Your task to perform on an android device: What is the recent news? Image 0: 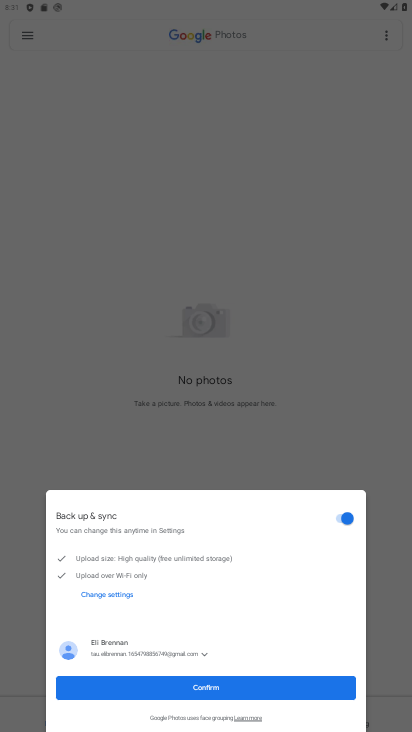
Step 0: press home button
Your task to perform on an android device: What is the recent news? Image 1: 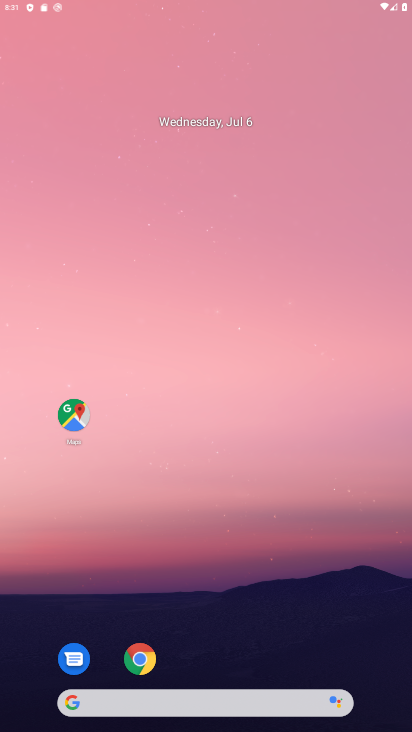
Step 1: press home button
Your task to perform on an android device: What is the recent news? Image 2: 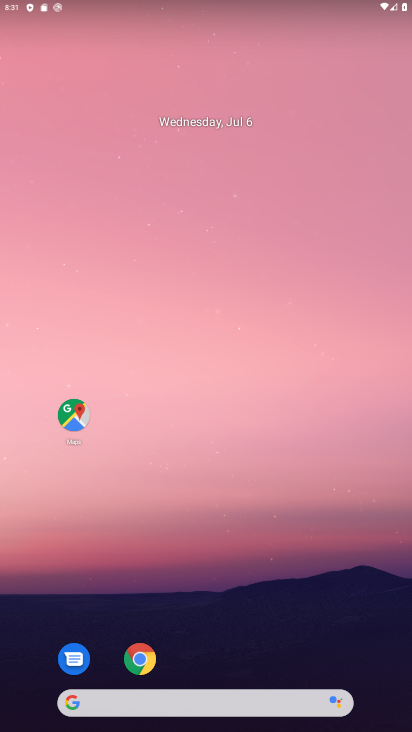
Step 2: press home button
Your task to perform on an android device: What is the recent news? Image 3: 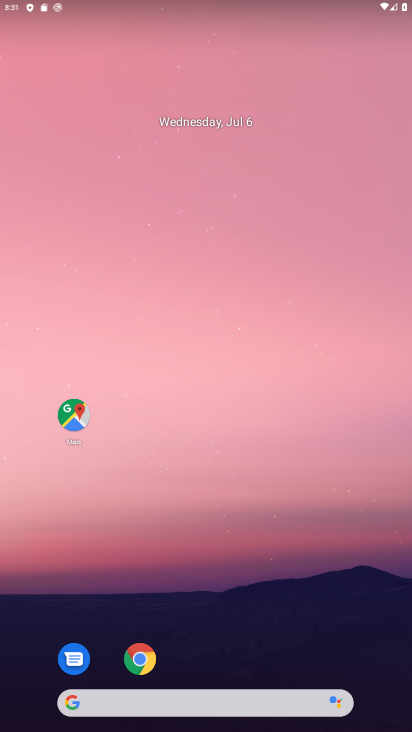
Step 3: click (323, 66)
Your task to perform on an android device: What is the recent news? Image 4: 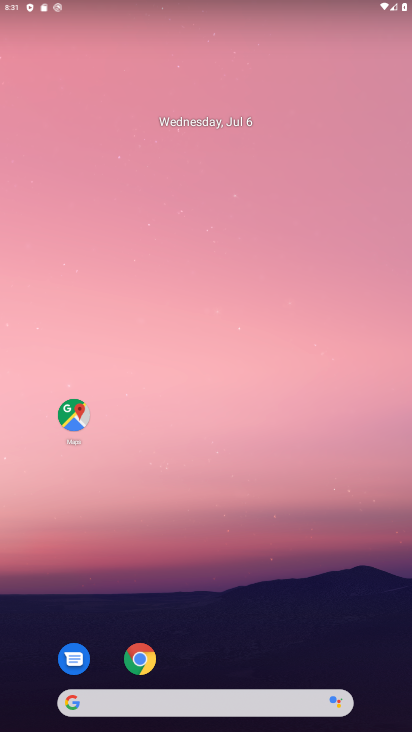
Step 4: click (384, 386)
Your task to perform on an android device: What is the recent news? Image 5: 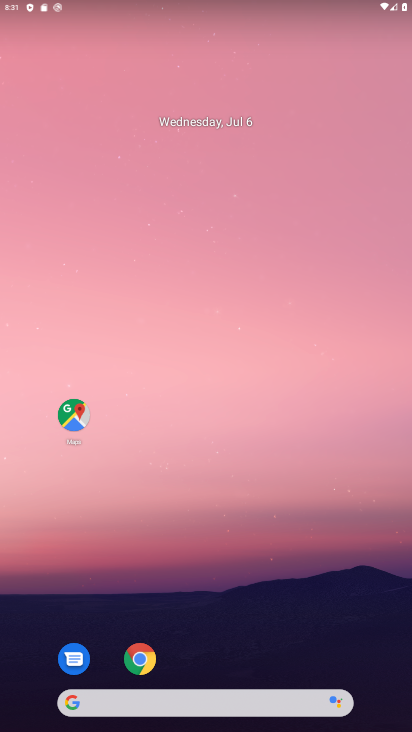
Step 5: drag from (214, 590) to (276, 212)
Your task to perform on an android device: What is the recent news? Image 6: 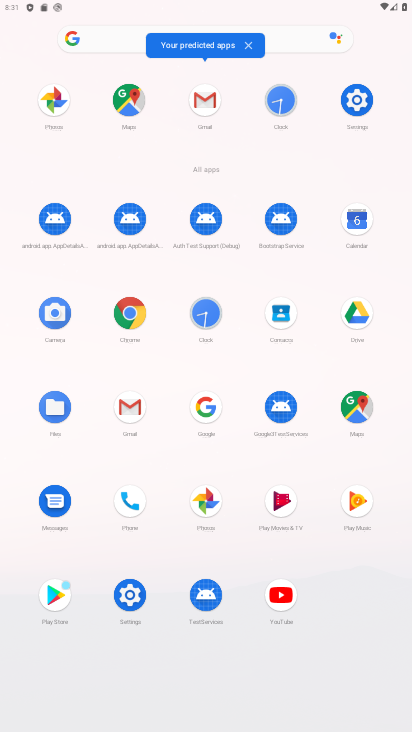
Step 6: click (141, 330)
Your task to perform on an android device: What is the recent news? Image 7: 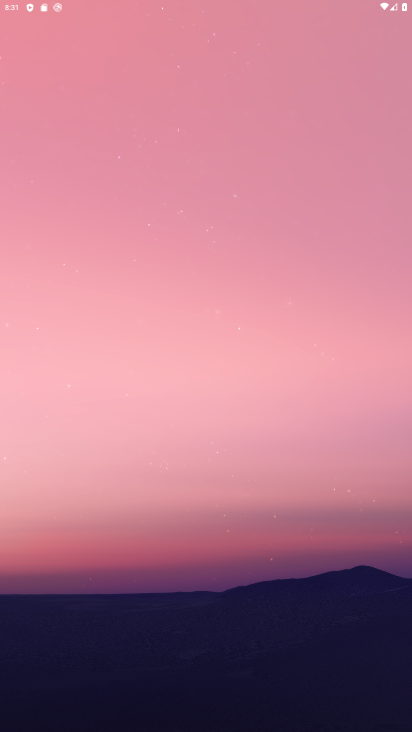
Step 7: click (141, 330)
Your task to perform on an android device: What is the recent news? Image 8: 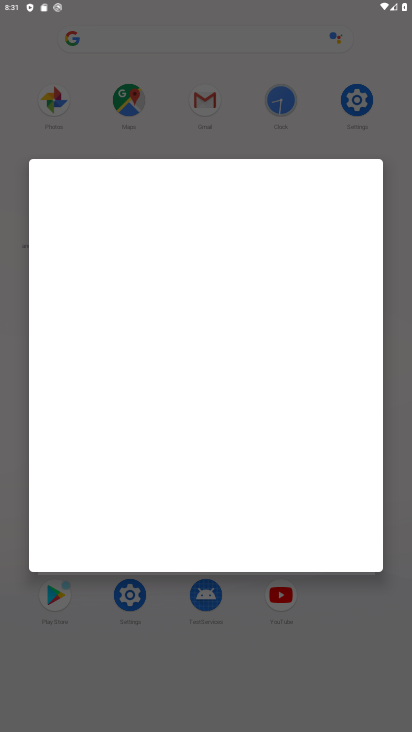
Step 8: click (141, 330)
Your task to perform on an android device: What is the recent news? Image 9: 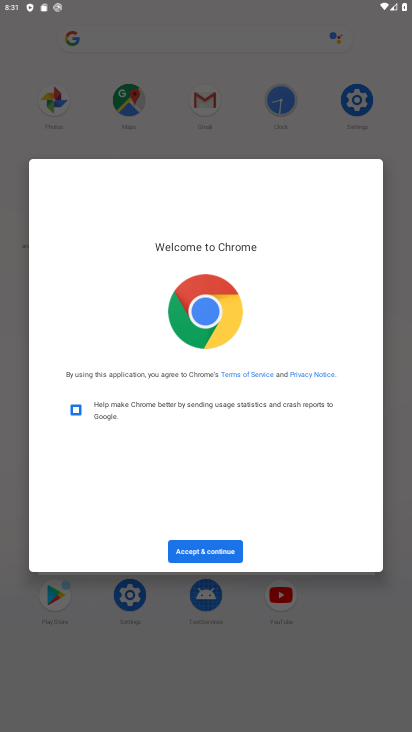
Step 9: click (141, 330)
Your task to perform on an android device: What is the recent news? Image 10: 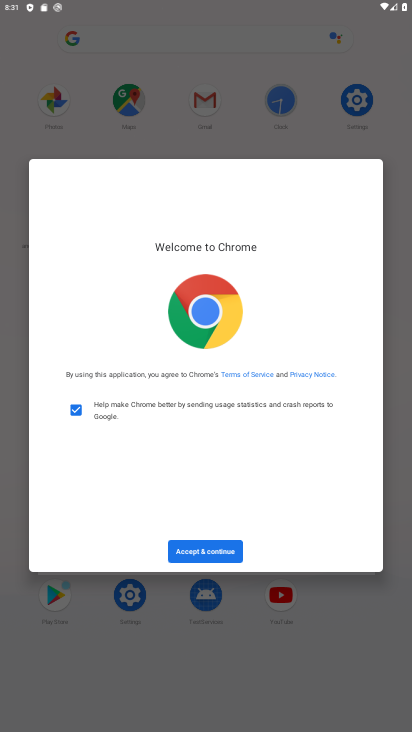
Step 10: click (221, 530)
Your task to perform on an android device: What is the recent news? Image 11: 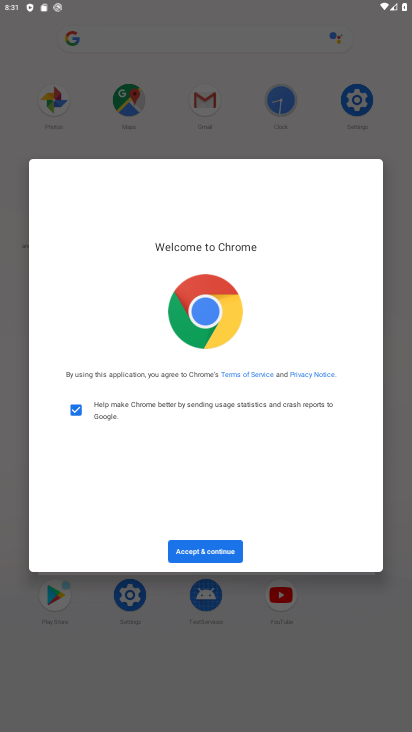
Step 11: click (231, 567)
Your task to perform on an android device: What is the recent news? Image 12: 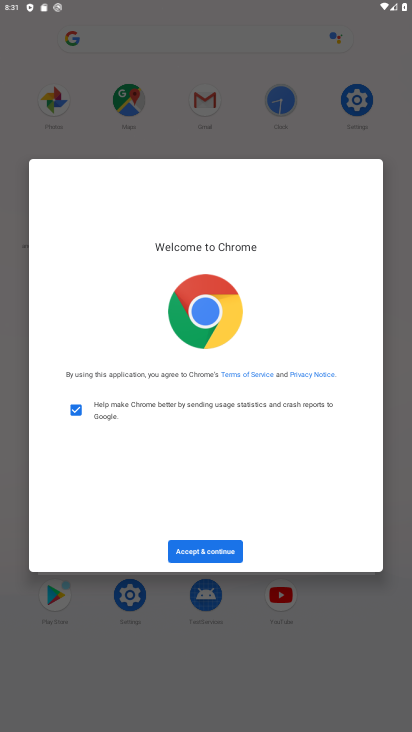
Step 12: click (230, 568)
Your task to perform on an android device: What is the recent news? Image 13: 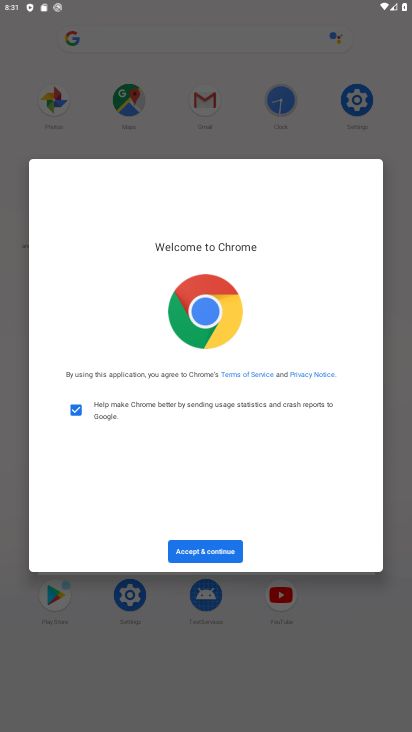
Step 13: click (220, 558)
Your task to perform on an android device: What is the recent news? Image 14: 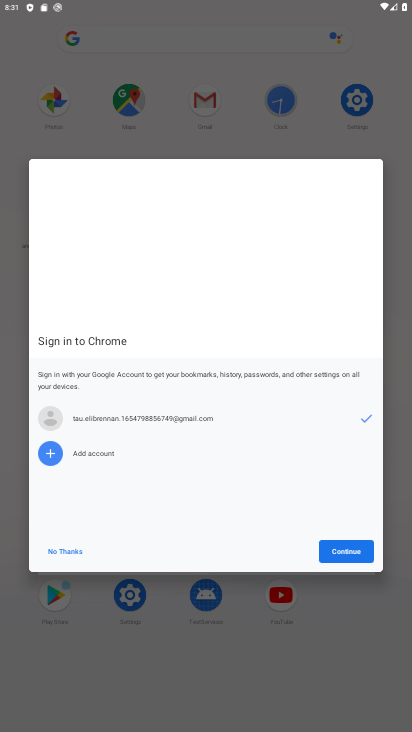
Step 14: click (219, 557)
Your task to perform on an android device: What is the recent news? Image 15: 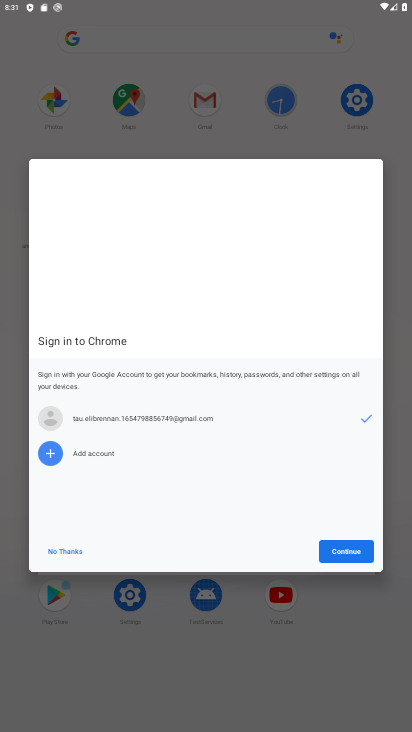
Step 15: drag from (219, 557) to (264, 556)
Your task to perform on an android device: What is the recent news? Image 16: 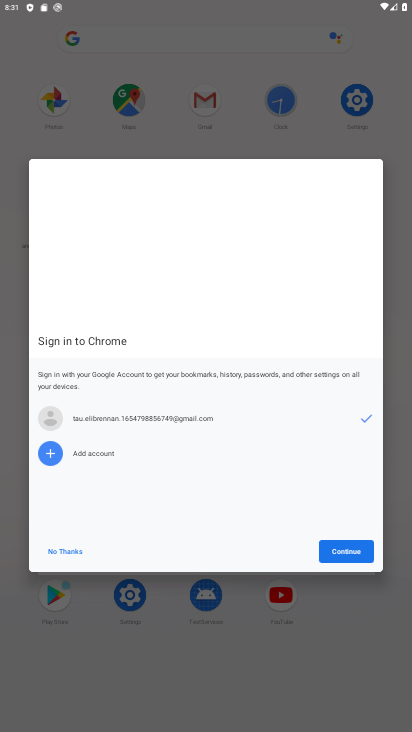
Step 16: click (375, 553)
Your task to perform on an android device: What is the recent news? Image 17: 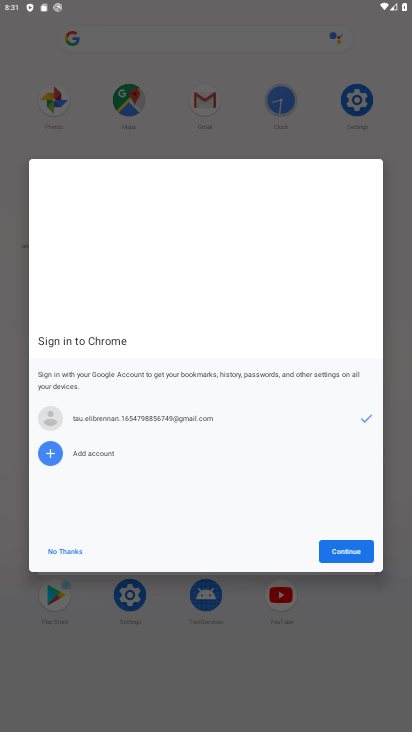
Step 17: click (379, 550)
Your task to perform on an android device: What is the recent news? Image 18: 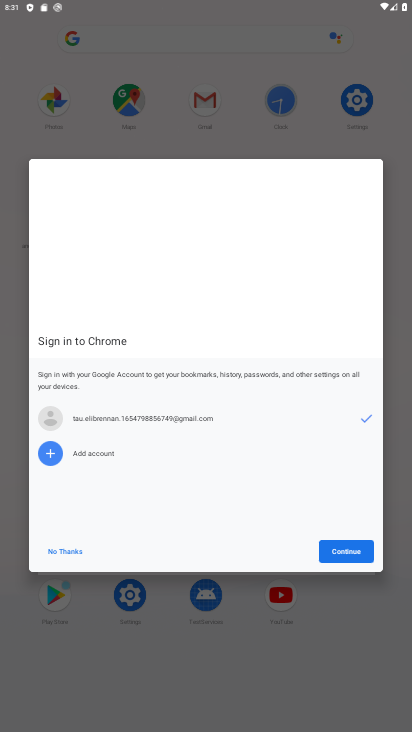
Step 18: click (375, 549)
Your task to perform on an android device: What is the recent news? Image 19: 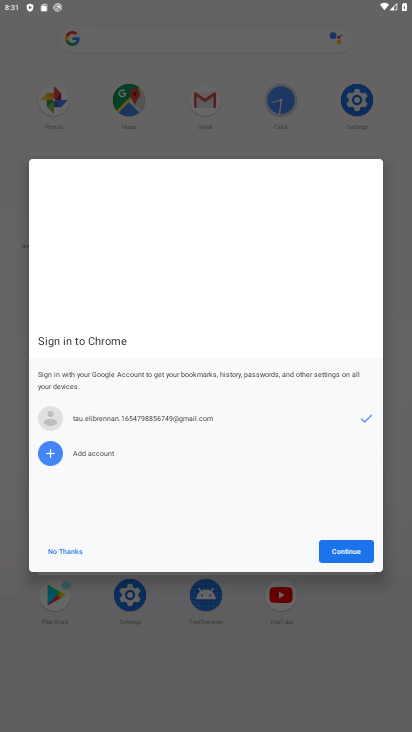
Step 19: click (362, 553)
Your task to perform on an android device: What is the recent news? Image 20: 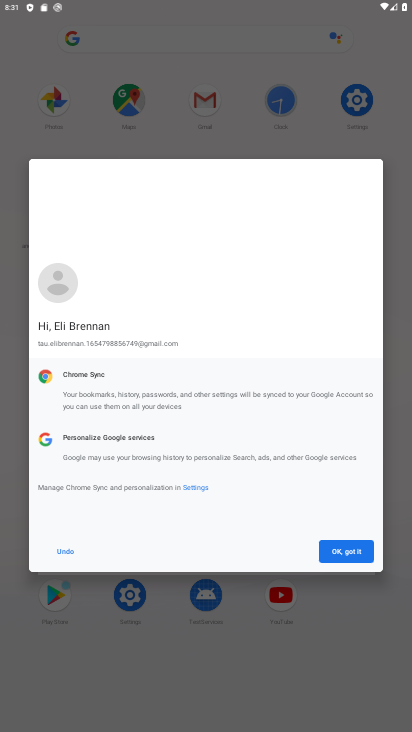
Step 20: click (358, 553)
Your task to perform on an android device: What is the recent news? Image 21: 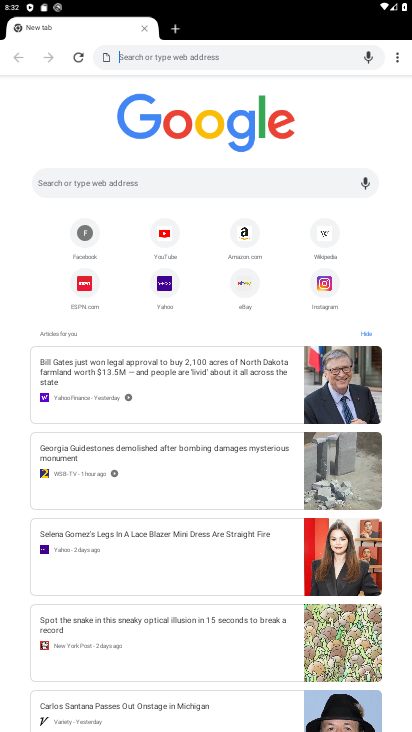
Step 21: task complete